Your task to perform on an android device: toggle location history Image 0: 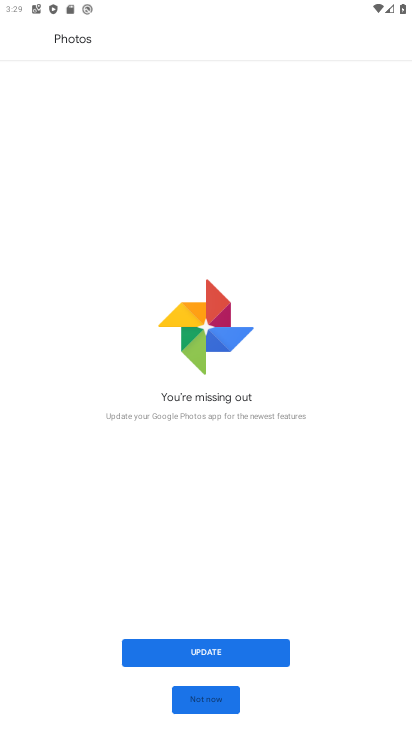
Step 0: press home button
Your task to perform on an android device: toggle location history Image 1: 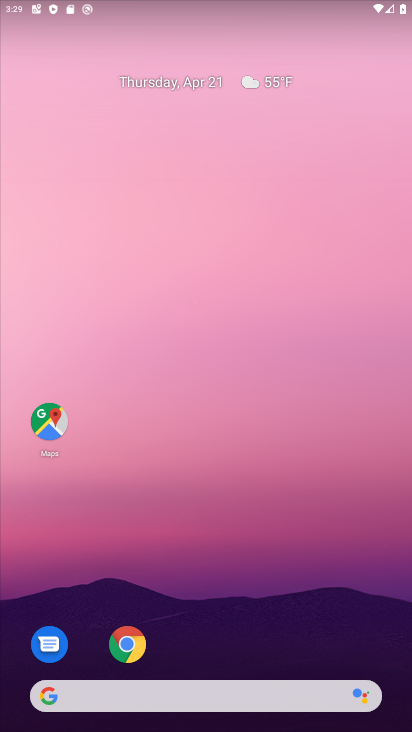
Step 1: drag from (221, 670) to (219, 29)
Your task to perform on an android device: toggle location history Image 2: 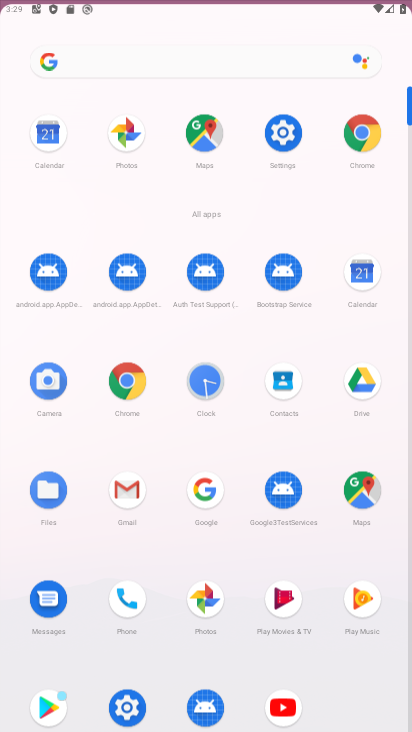
Step 2: click (285, 127)
Your task to perform on an android device: toggle location history Image 3: 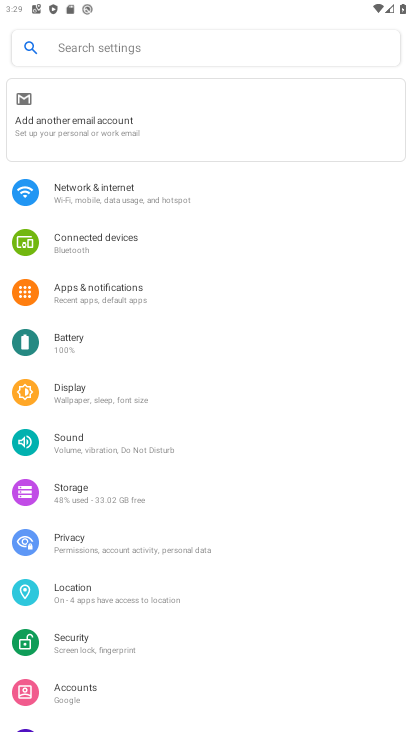
Step 3: click (86, 600)
Your task to perform on an android device: toggle location history Image 4: 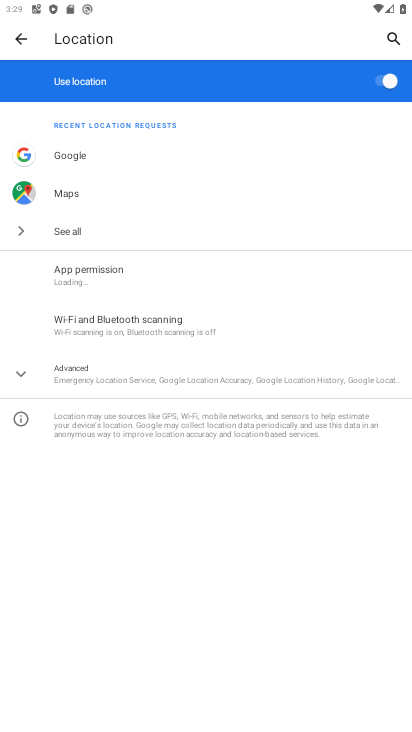
Step 4: click (108, 377)
Your task to perform on an android device: toggle location history Image 5: 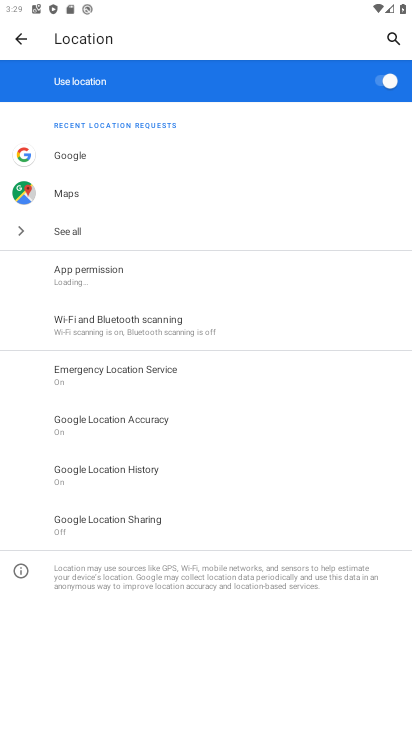
Step 5: click (120, 461)
Your task to perform on an android device: toggle location history Image 6: 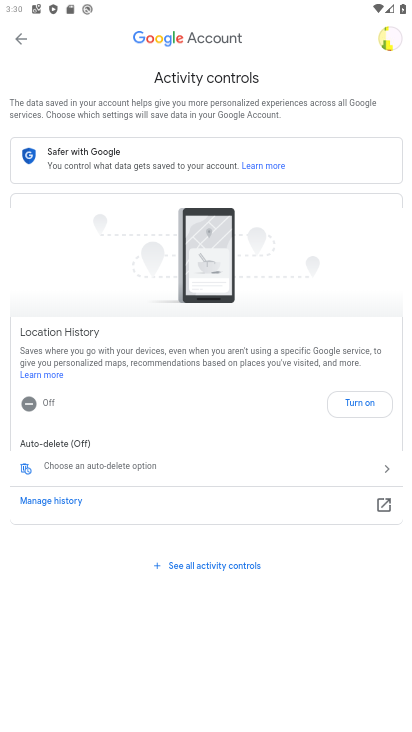
Step 6: click (363, 403)
Your task to perform on an android device: toggle location history Image 7: 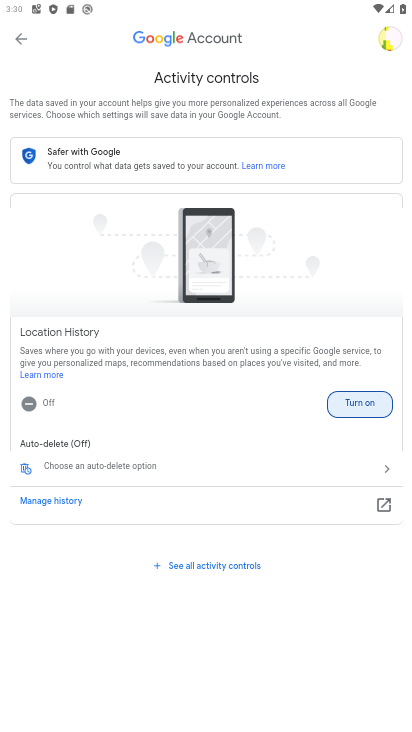
Step 7: click (358, 403)
Your task to perform on an android device: toggle location history Image 8: 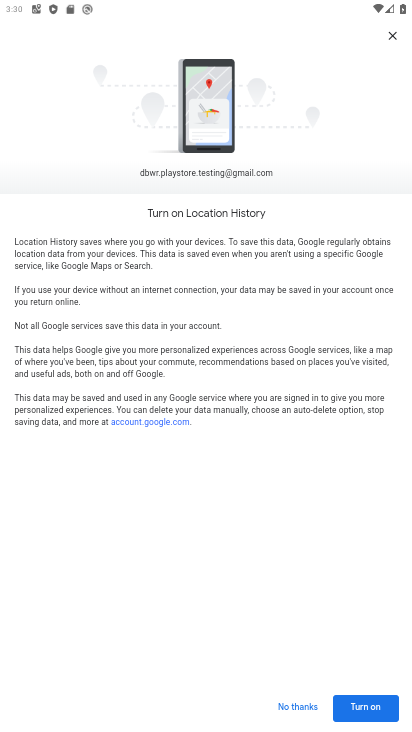
Step 8: click (378, 709)
Your task to perform on an android device: toggle location history Image 9: 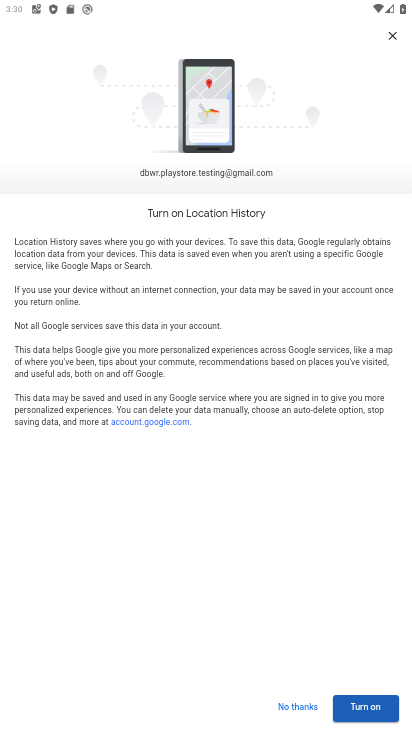
Step 9: click (368, 697)
Your task to perform on an android device: toggle location history Image 10: 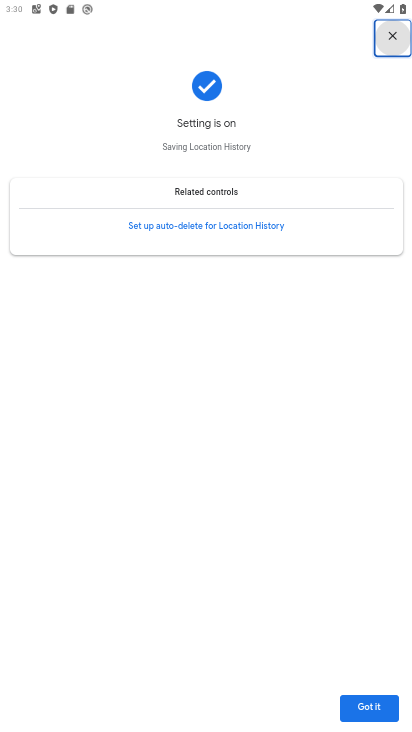
Step 10: task complete